Your task to perform on an android device: Go to Reddit.com Image 0: 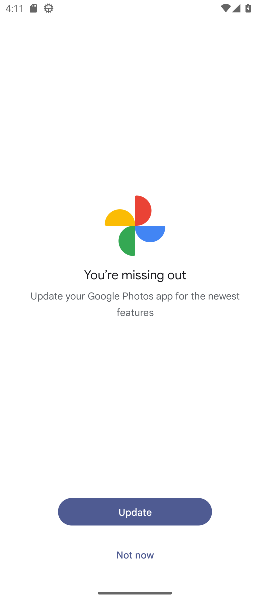
Step 0: press back button
Your task to perform on an android device: Go to Reddit.com Image 1: 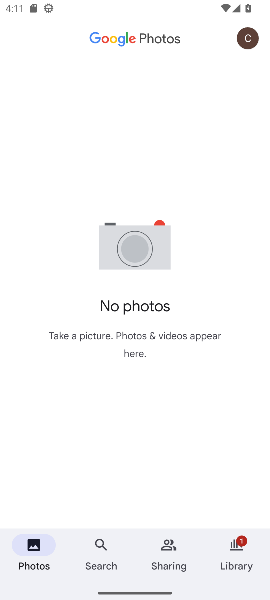
Step 1: press back button
Your task to perform on an android device: Go to Reddit.com Image 2: 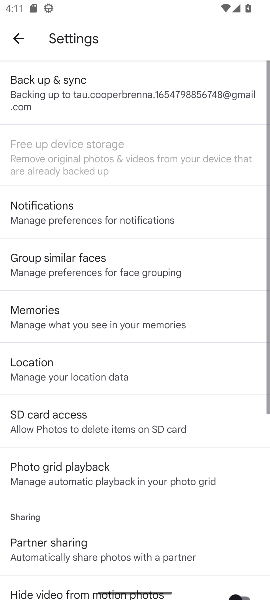
Step 2: press home button
Your task to perform on an android device: Go to Reddit.com Image 3: 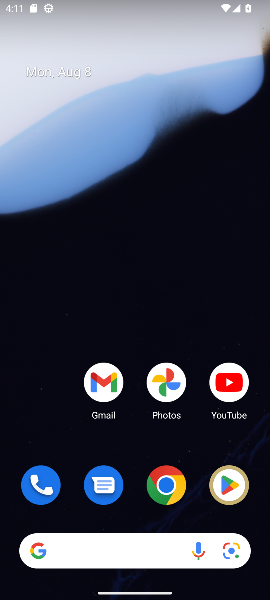
Step 3: click (174, 494)
Your task to perform on an android device: Go to Reddit.com Image 4: 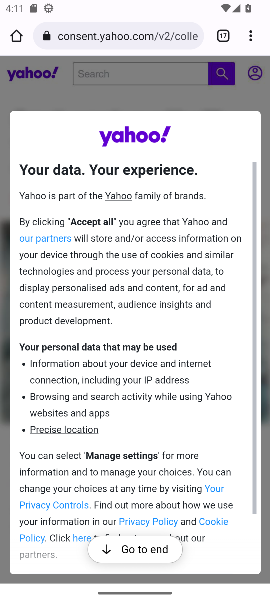
Step 4: drag from (252, 39) to (139, 69)
Your task to perform on an android device: Go to Reddit.com Image 5: 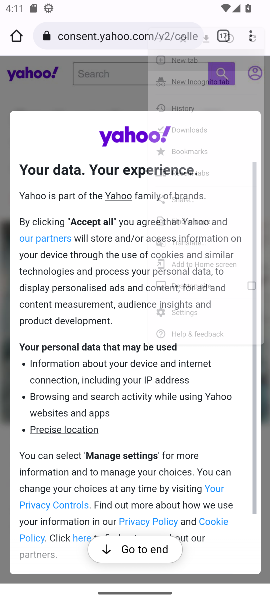
Step 5: click (141, 71)
Your task to perform on an android device: Go to Reddit.com Image 6: 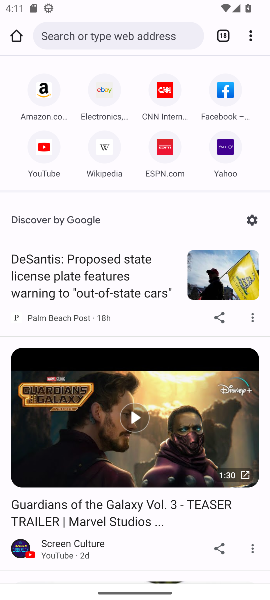
Step 6: click (48, 32)
Your task to perform on an android device: Go to Reddit.com Image 7: 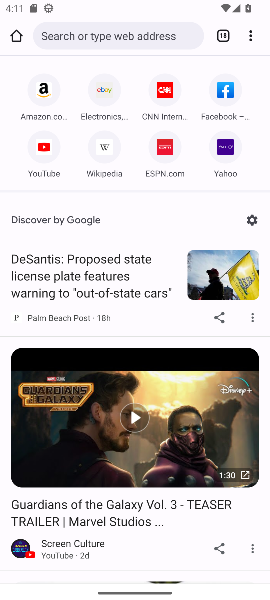
Step 7: click (54, 33)
Your task to perform on an android device: Go to Reddit.com Image 8: 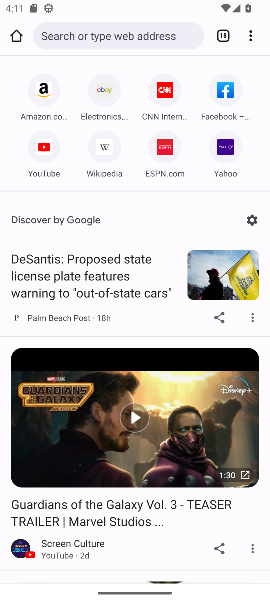
Step 8: click (54, 34)
Your task to perform on an android device: Go to Reddit.com Image 9: 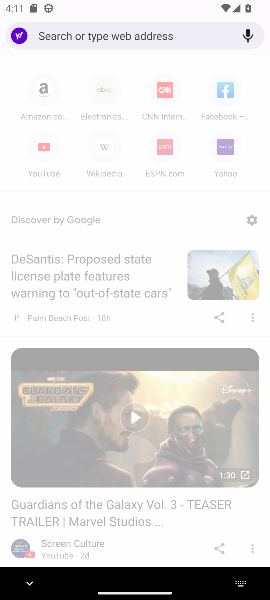
Step 9: type "reddit.com"
Your task to perform on an android device: Go to Reddit.com Image 10: 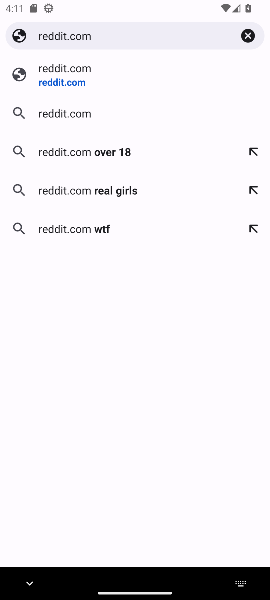
Step 10: click (55, 86)
Your task to perform on an android device: Go to Reddit.com Image 11: 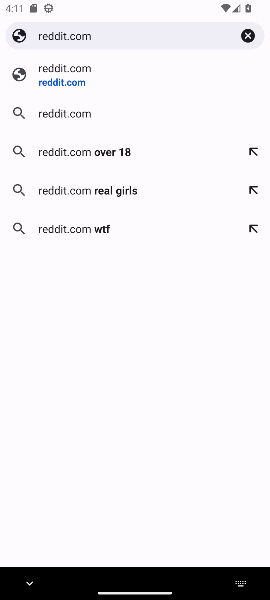
Step 11: click (55, 86)
Your task to perform on an android device: Go to Reddit.com Image 12: 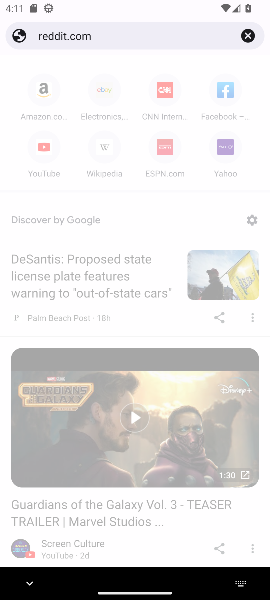
Step 12: click (55, 86)
Your task to perform on an android device: Go to Reddit.com Image 13: 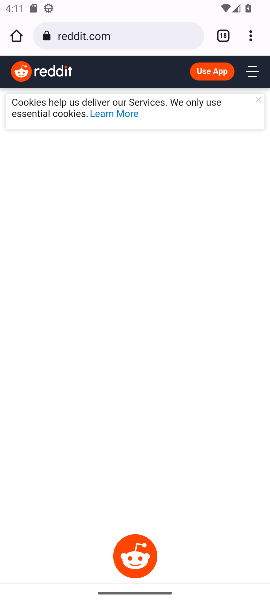
Step 13: task complete